Your task to perform on an android device: change notification settings in the gmail app Image 0: 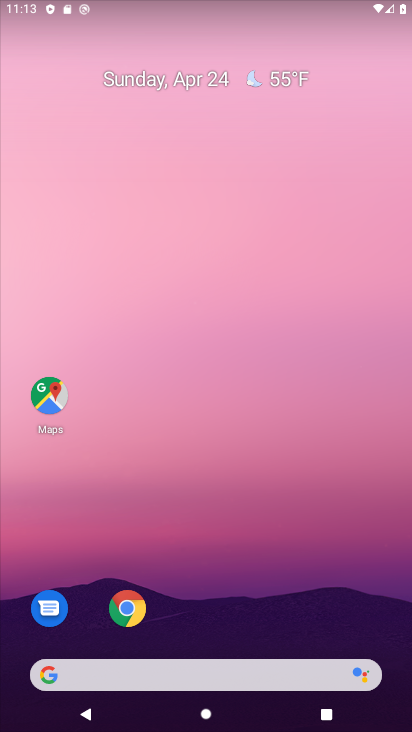
Step 0: drag from (207, 595) to (326, 145)
Your task to perform on an android device: change notification settings in the gmail app Image 1: 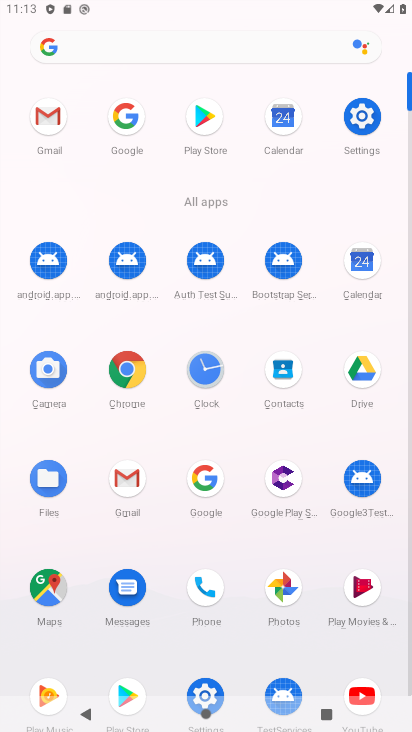
Step 1: click (54, 115)
Your task to perform on an android device: change notification settings in the gmail app Image 2: 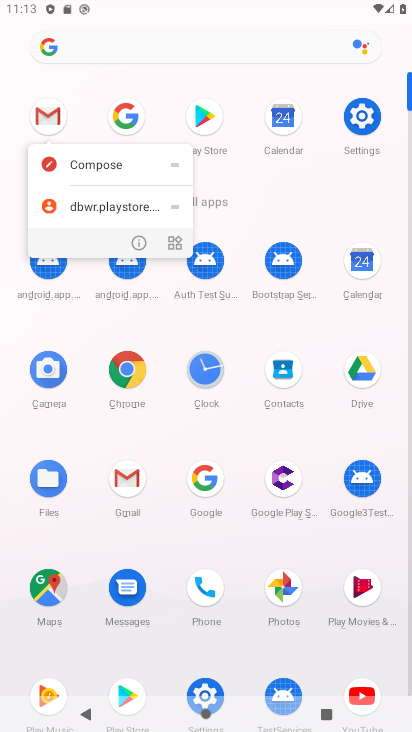
Step 2: click (140, 245)
Your task to perform on an android device: change notification settings in the gmail app Image 3: 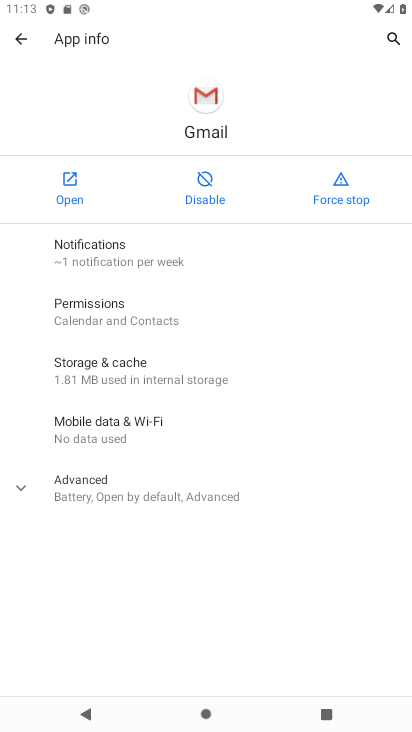
Step 3: click (111, 258)
Your task to perform on an android device: change notification settings in the gmail app Image 4: 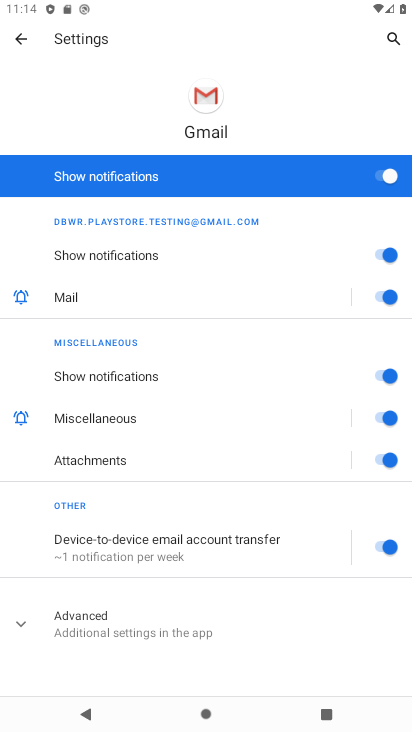
Step 4: click (400, 373)
Your task to perform on an android device: change notification settings in the gmail app Image 5: 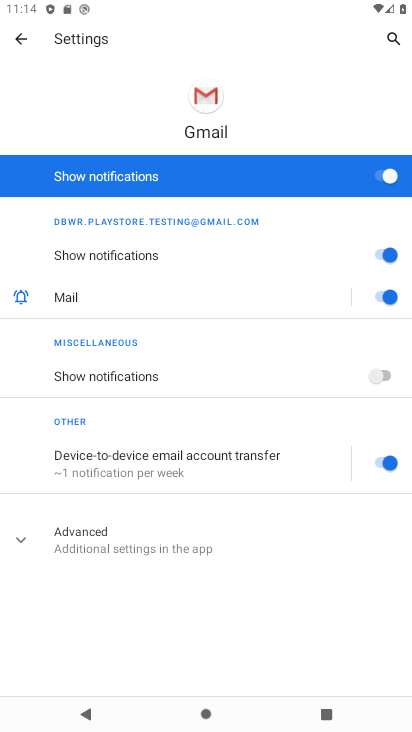
Step 5: task complete